Your task to perform on an android device: Open Maps and search for coffee Image 0: 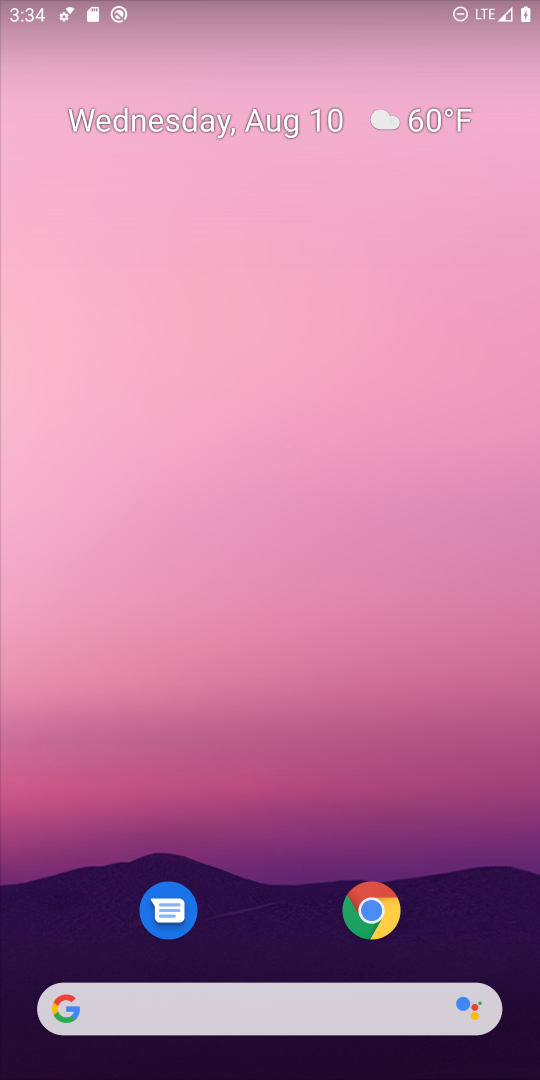
Step 0: drag from (297, 932) to (363, 56)
Your task to perform on an android device: Open Maps and search for coffee Image 1: 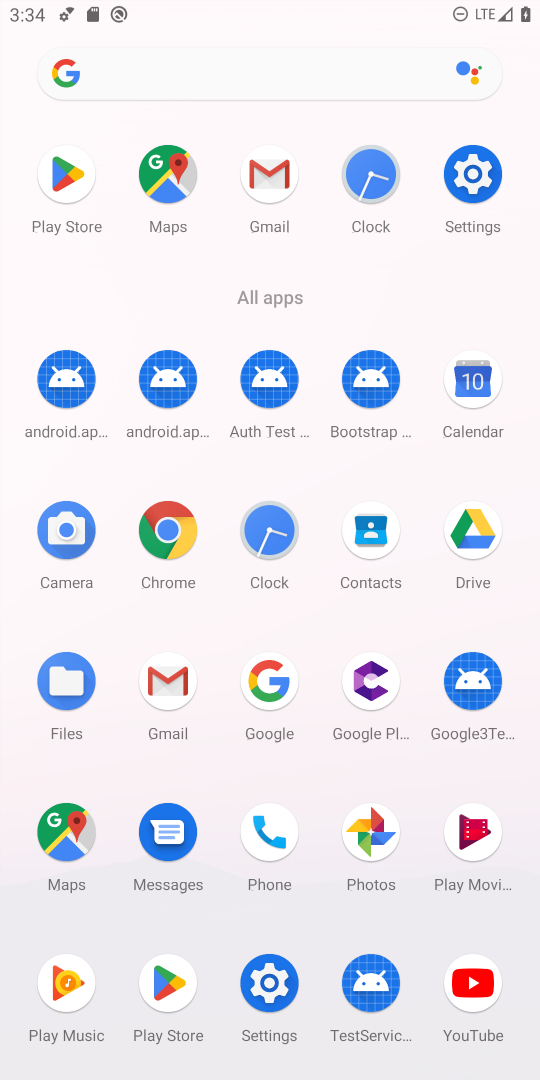
Step 1: click (275, 178)
Your task to perform on an android device: Open Maps and search for coffee Image 2: 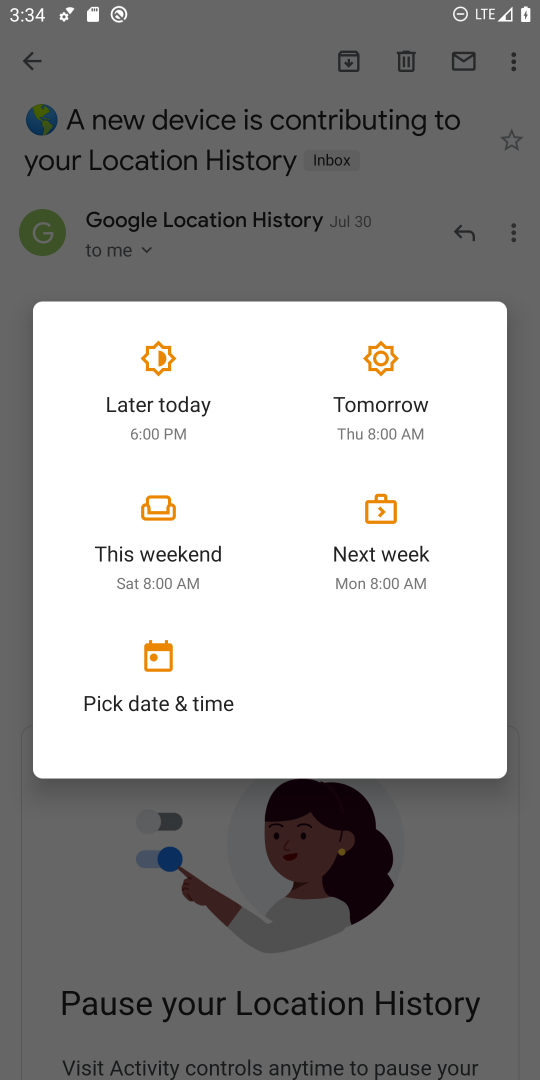
Step 2: click (126, 188)
Your task to perform on an android device: Open Maps and search for coffee Image 3: 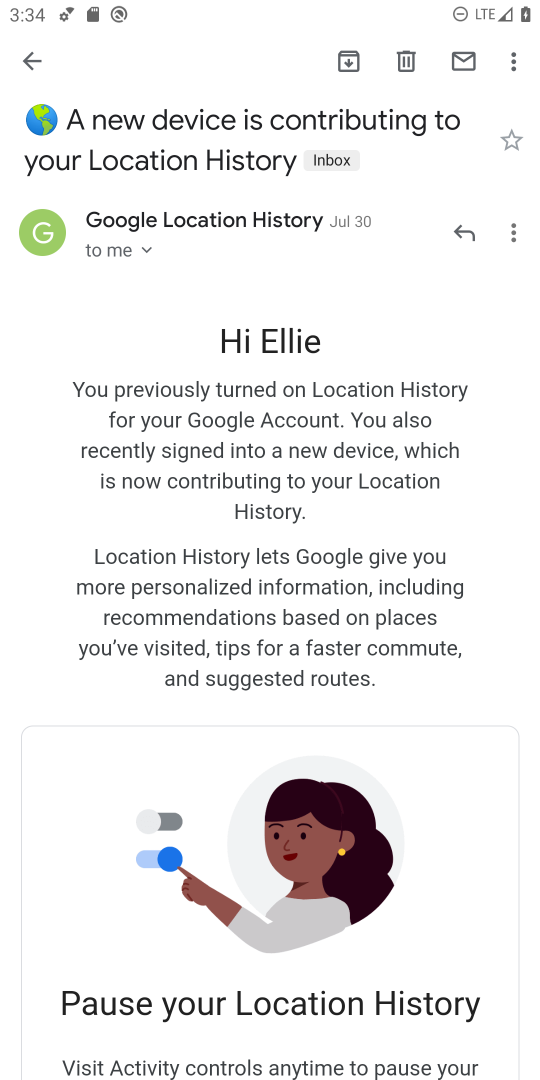
Step 3: click (29, 56)
Your task to perform on an android device: Open Maps and search for coffee Image 4: 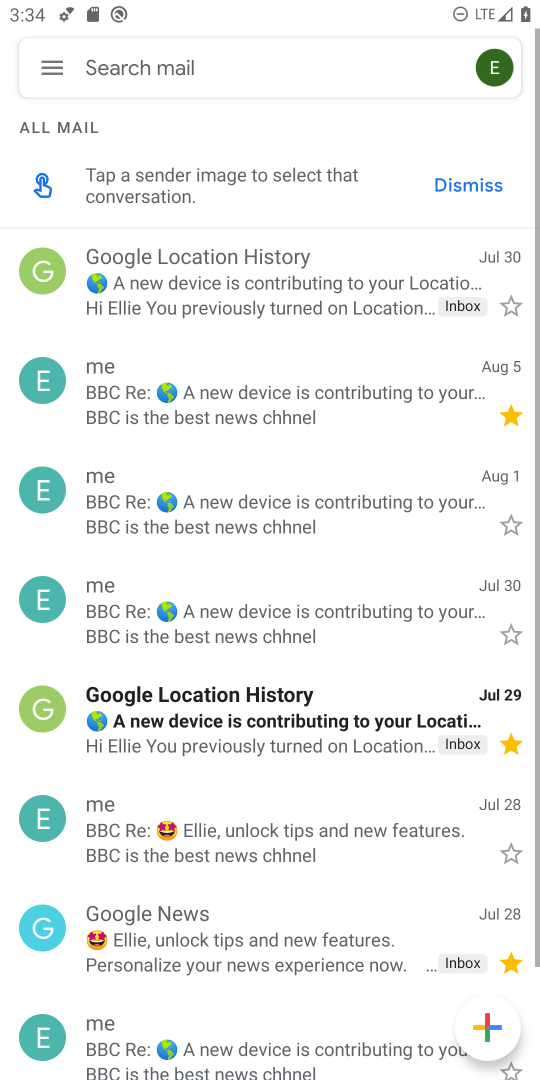
Step 4: click (314, 282)
Your task to perform on an android device: Open Maps and search for coffee Image 5: 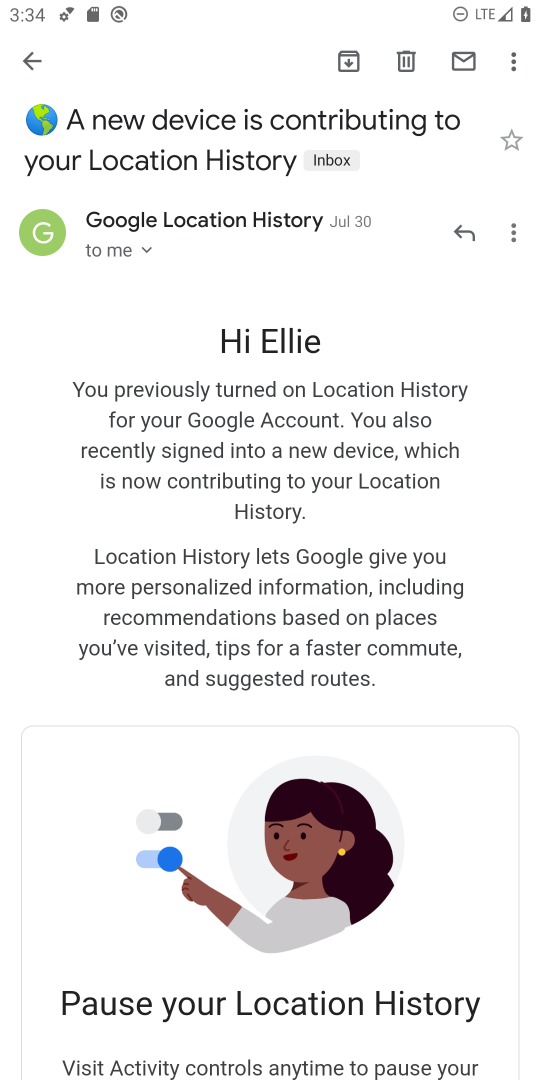
Step 5: click (402, 57)
Your task to perform on an android device: Open Maps and search for coffee Image 6: 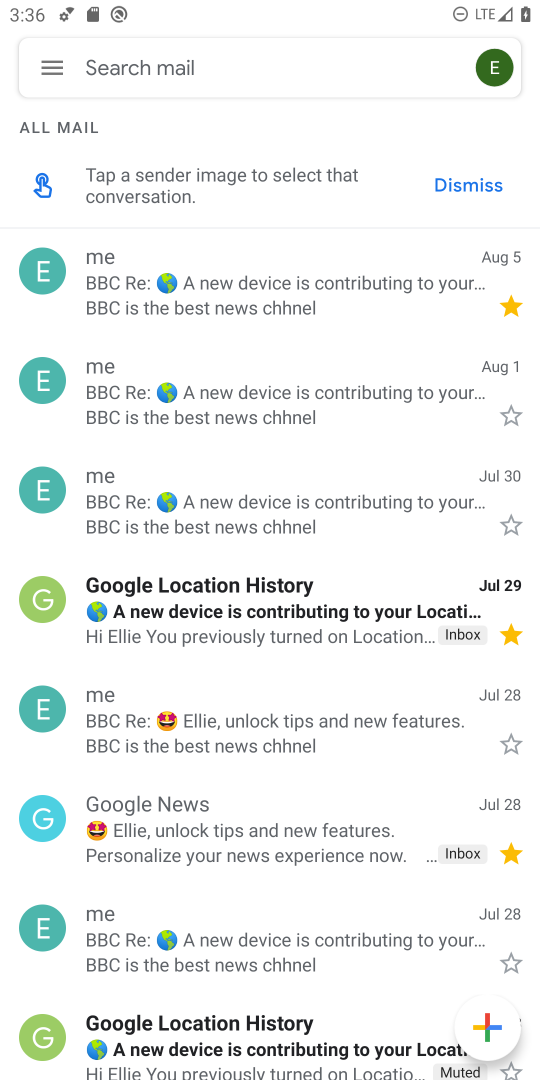
Step 6: task complete